Your task to perform on an android device: Clear the shopping cart on ebay.com. Search for "bose quietcomfort 35" on ebay.com, select the first entry, add it to the cart, then select checkout. Image 0: 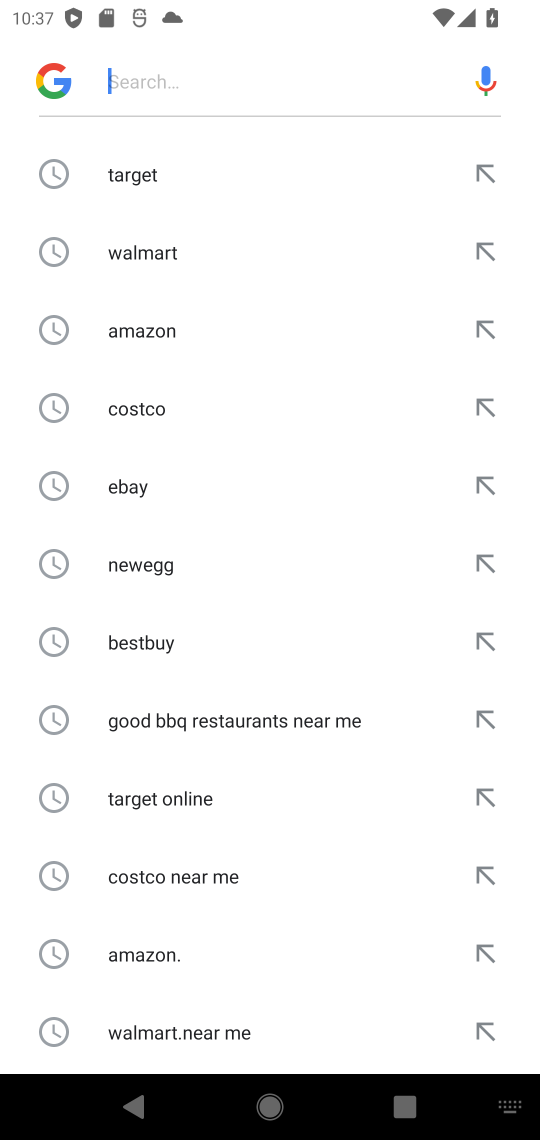
Step 0: click (139, 78)
Your task to perform on an android device: Clear the shopping cart on ebay.com. Search for "bose quietcomfort 35" on ebay.com, select the first entry, add it to the cart, then select checkout. Image 1: 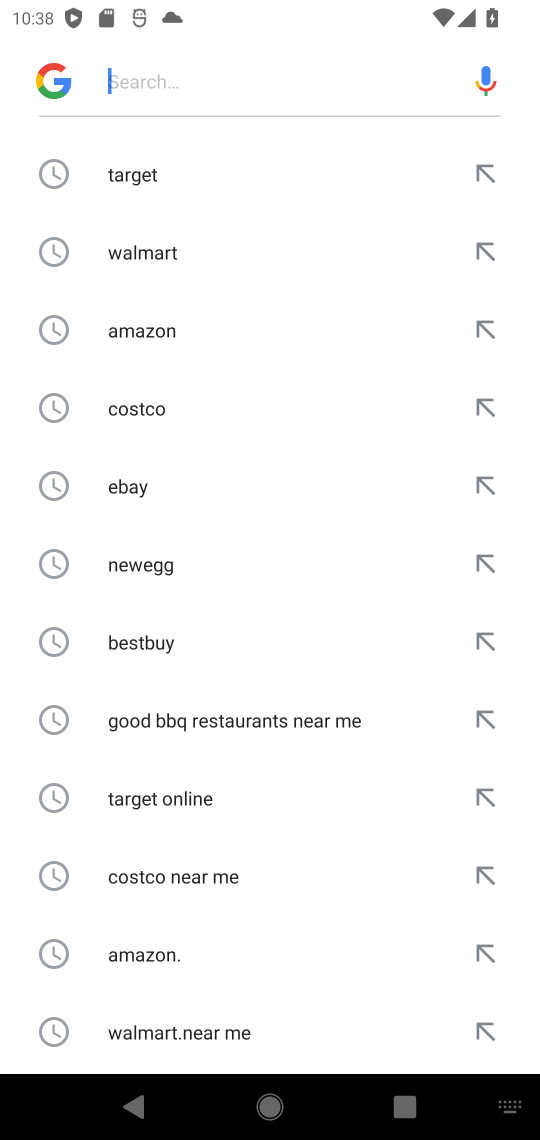
Step 1: type "ebay.com"
Your task to perform on an android device: Clear the shopping cart on ebay.com. Search for "bose quietcomfort 35" on ebay.com, select the first entry, add it to the cart, then select checkout. Image 2: 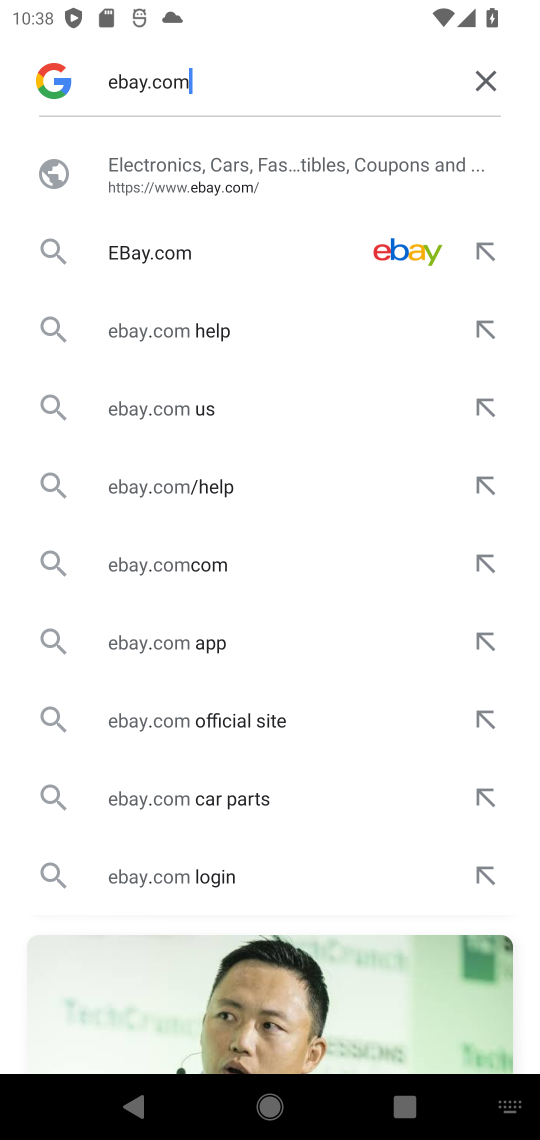
Step 2: click (130, 251)
Your task to perform on an android device: Clear the shopping cart on ebay.com. Search for "bose quietcomfort 35" on ebay.com, select the first entry, add it to the cart, then select checkout. Image 3: 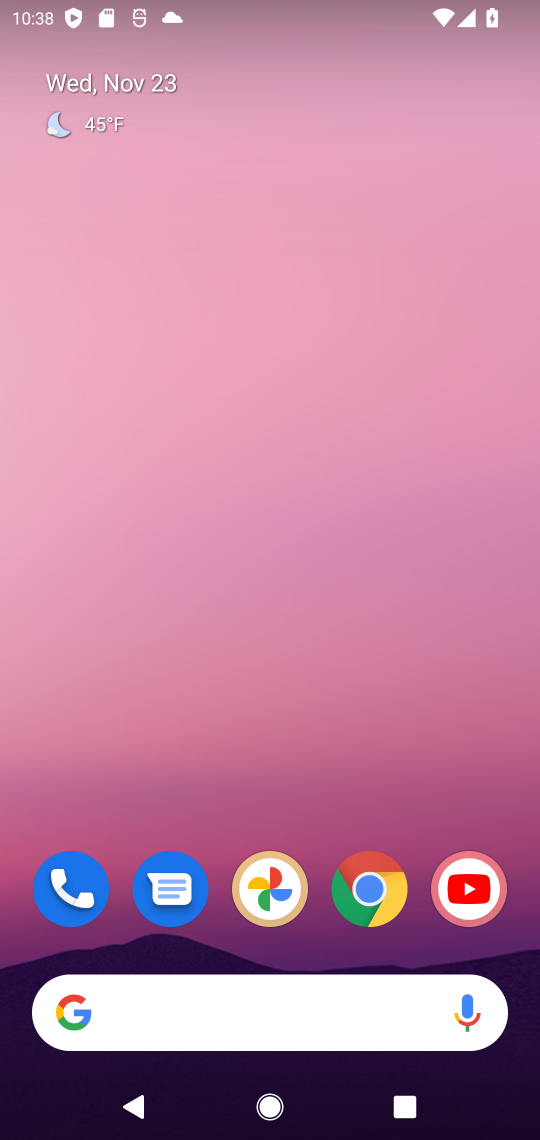
Step 3: click (363, 900)
Your task to perform on an android device: Clear the shopping cart on ebay.com. Search for "bose quietcomfort 35" on ebay.com, select the first entry, add it to the cart, then select checkout. Image 4: 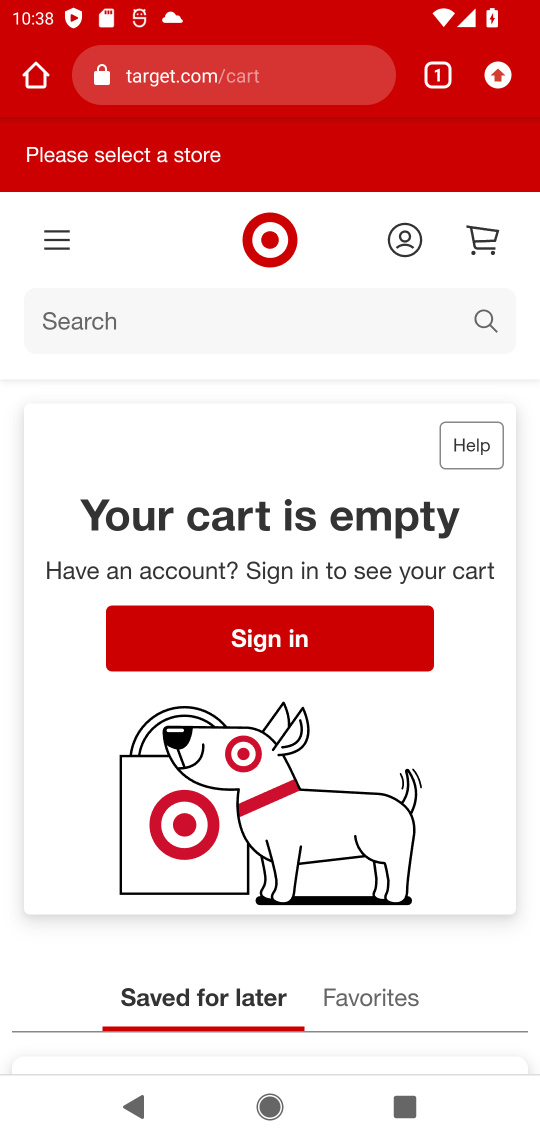
Step 4: click (185, 83)
Your task to perform on an android device: Clear the shopping cart on ebay.com. Search for "bose quietcomfort 35" on ebay.com, select the first entry, add it to the cart, then select checkout. Image 5: 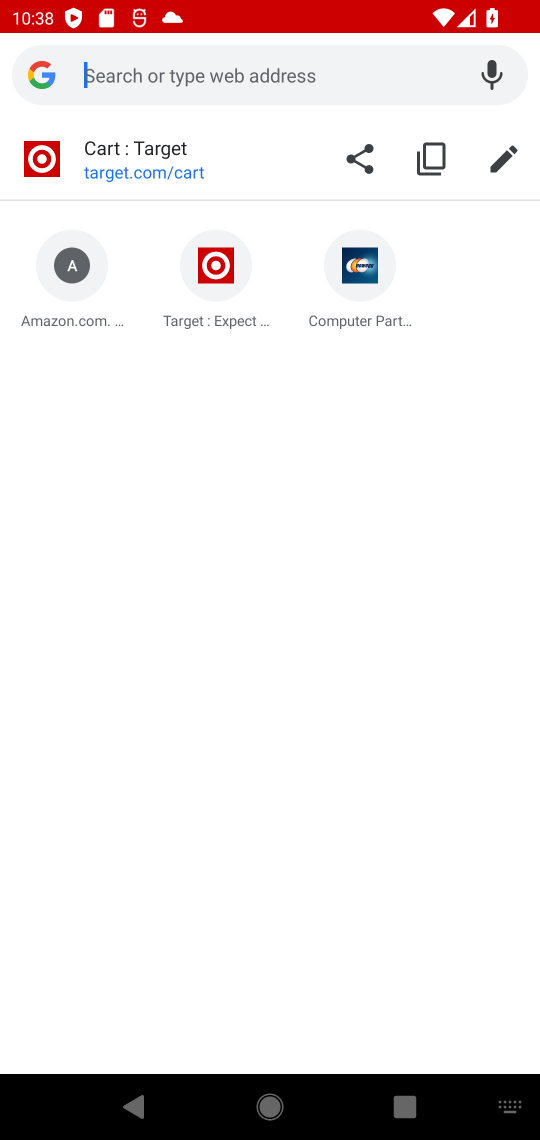
Step 5: type "ebay.com"
Your task to perform on an android device: Clear the shopping cart on ebay.com. Search for "bose quietcomfort 35" on ebay.com, select the first entry, add it to the cart, then select checkout. Image 6: 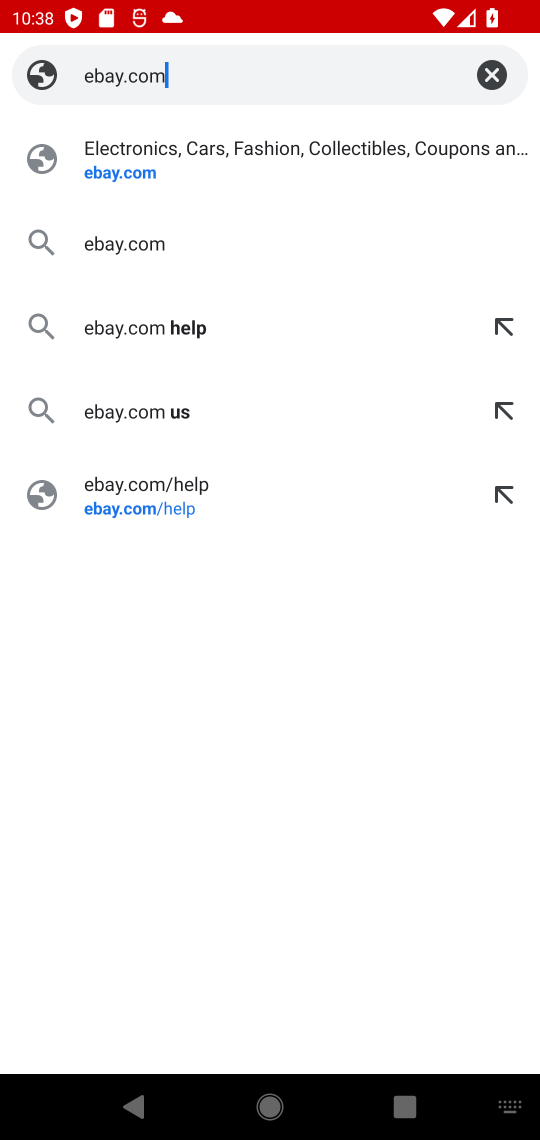
Step 6: click (108, 171)
Your task to perform on an android device: Clear the shopping cart on ebay.com. Search for "bose quietcomfort 35" on ebay.com, select the first entry, add it to the cart, then select checkout. Image 7: 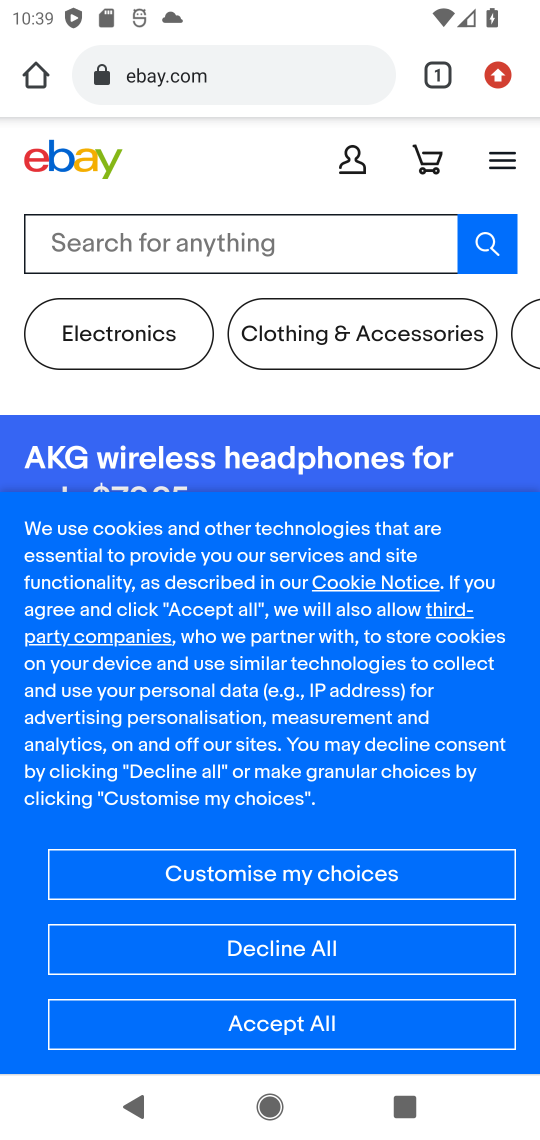
Step 7: click (436, 161)
Your task to perform on an android device: Clear the shopping cart on ebay.com. Search for "bose quietcomfort 35" on ebay.com, select the first entry, add it to the cart, then select checkout. Image 8: 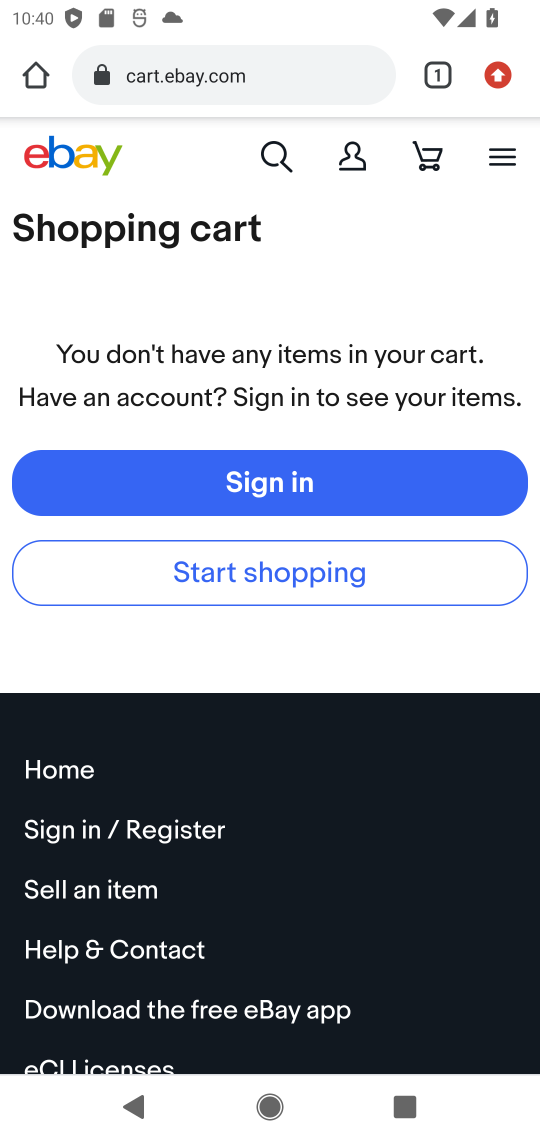
Step 8: click (288, 157)
Your task to perform on an android device: Clear the shopping cart on ebay.com. Search for "bose quietcomfort 35" on ebay.com, select the first entry, add it to the cart, then select checkout. Image 9: 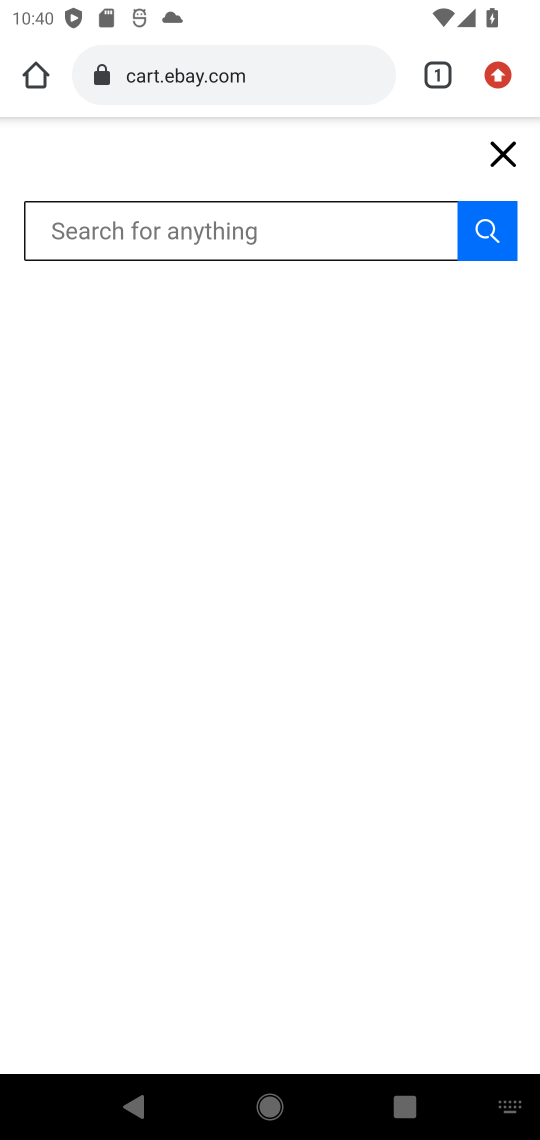
Step 9: type "bose quietcomfort 35"
Your task to perform on an android device: Clear the shopping cart on ebay.com. Search for "bose quietcomfort 35" on ebay.com, select the first entry, add it to the cart, then select checkout. Image 10: 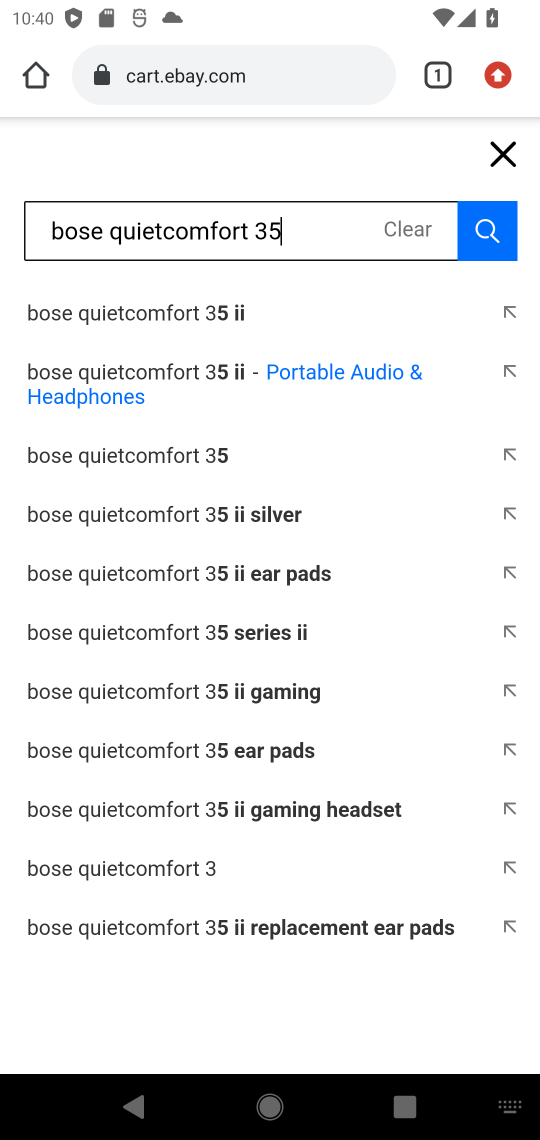
Step 10: click (147, 449)
Your task to perform on an android device: Clear the shopping cart on ebay.com. Search for "bose quietcomfort 35" on ebay.com, select the first entry, add it to the cart, then select checkout. Image 11: 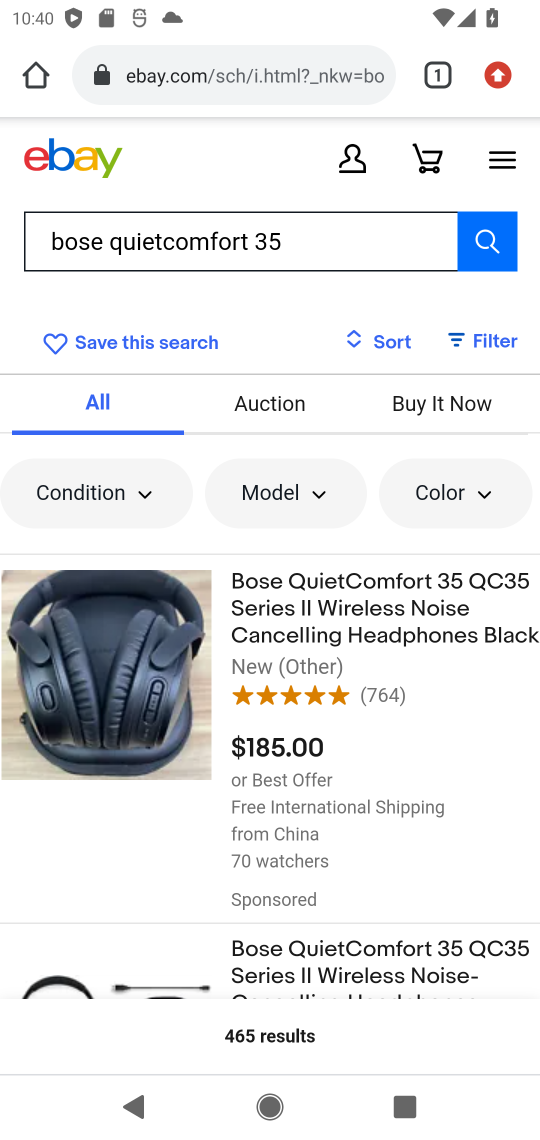
Step 11: click (96, 725)
Your task to perform on an android device: Clear the shopping cart on ebay.com. Search for "bose quietcomfort 35" on ebay.com, select the first entry, add it to the cart, then select checkout. Image 12: 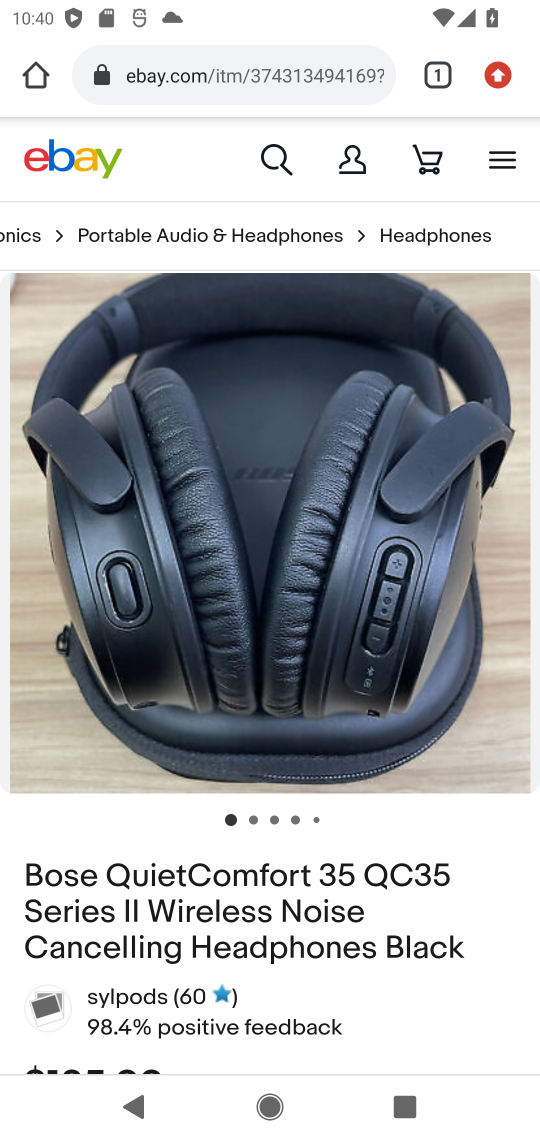
Step 12: drag from (366, 653) to (374, 216)
Your task to perform on an android device: Clear the shopping cart on ebay.com. Search for "bose quietcomfort 35" on ebay.com, select the first entry, add it to the cart, then select checkout. Image 13: 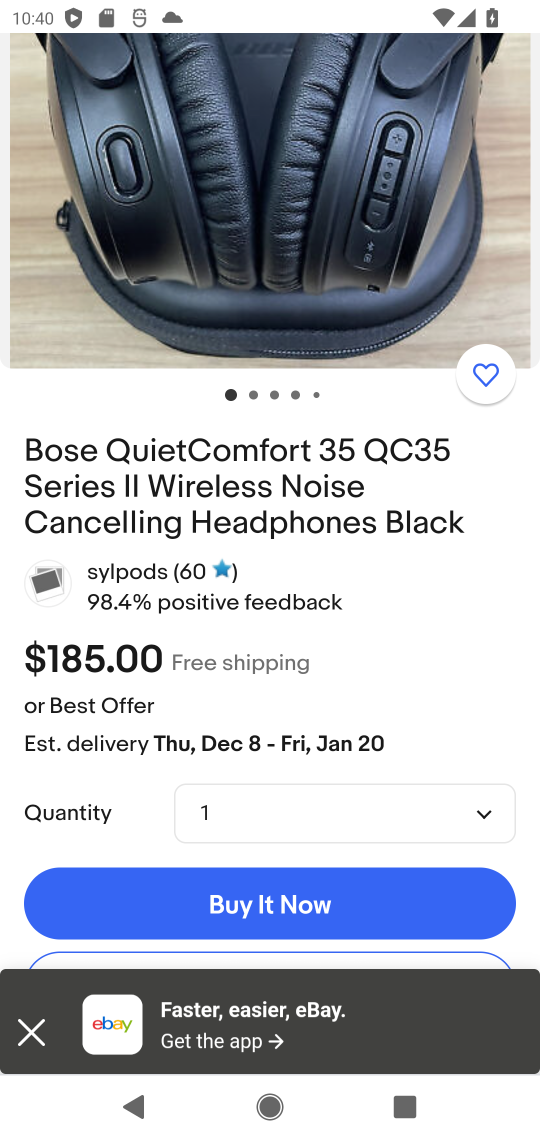
Step 13: drag from (249, 705) to (243, 226)
Your task to perform on an android device: Clear the shopping cart on ebay.com. Search for "bose quietcomfort 35" on ebay.com, select the first entry, add it to the cart, then select checkout. Image 14: 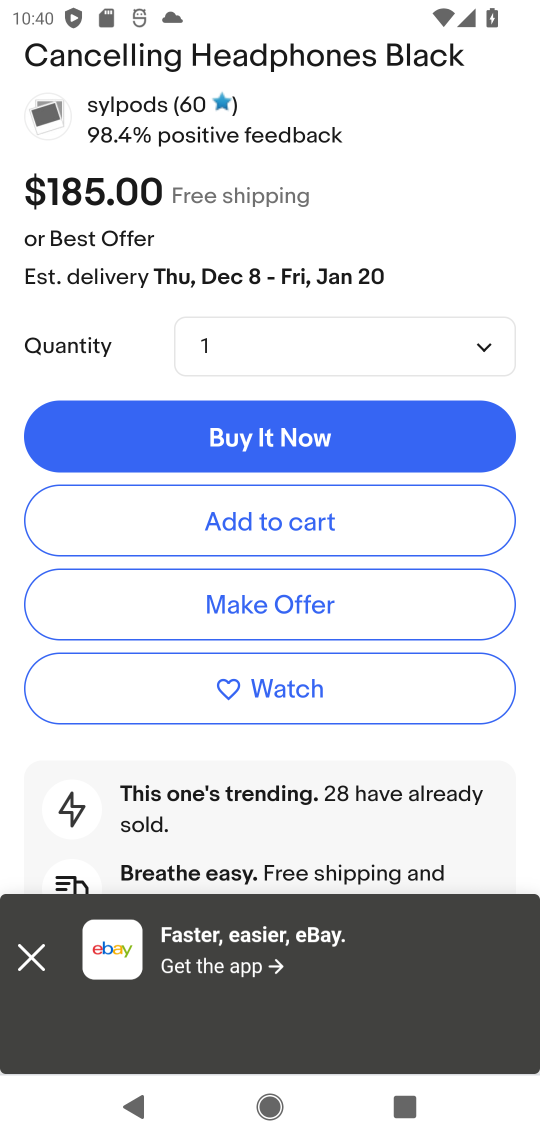
Step 14: click (241, 518)
Your task to perform on an android device: Clear the shopping cart on ebay.com. Search for "bose quietcomfort 35" on ebay.com, select the first entry, add it to the cart, then select checkout. Image 15: 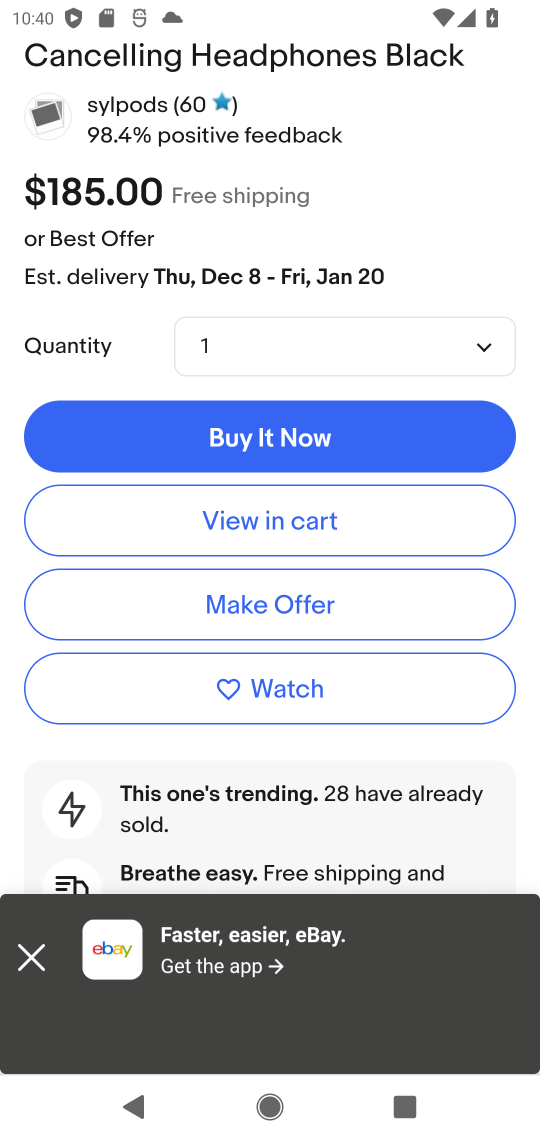
Step 15: click (241, 518)
Your task to perform on an android device: Clear the shopping cart on ebay.com. Search for "bose quietcomfort 35" on ebay.com, select the first entry, add it to the cart, then select checkout. Image 16: 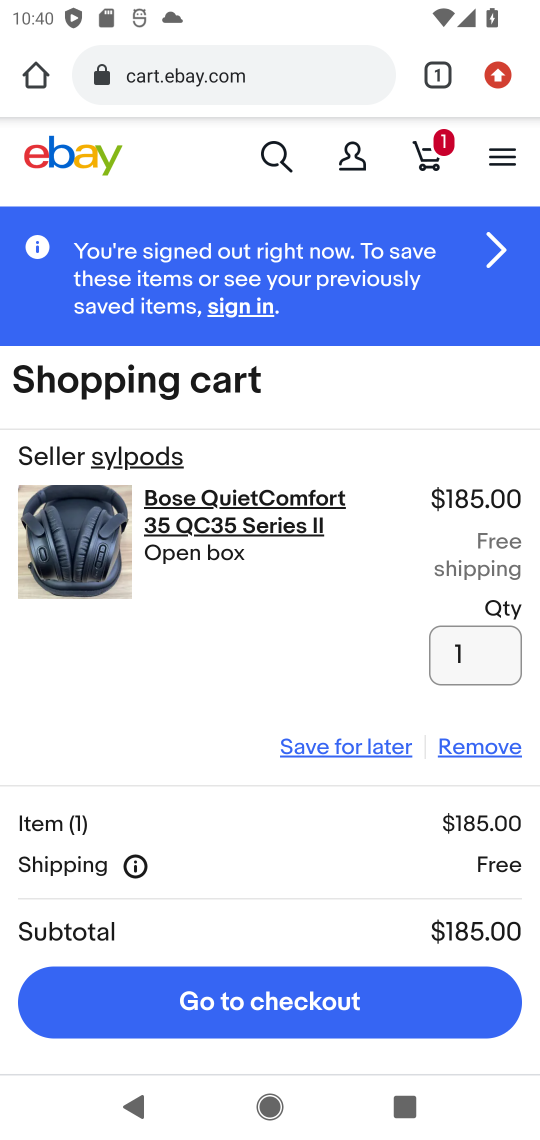
Step 16: click (247, 999)
Your task to perform on an android device: Clear the shopping cart on ebay.com. Search for "bose quietcomfort 35" on ebay.com, select the first entry, add it to the cart, then select checkout. Image 17: 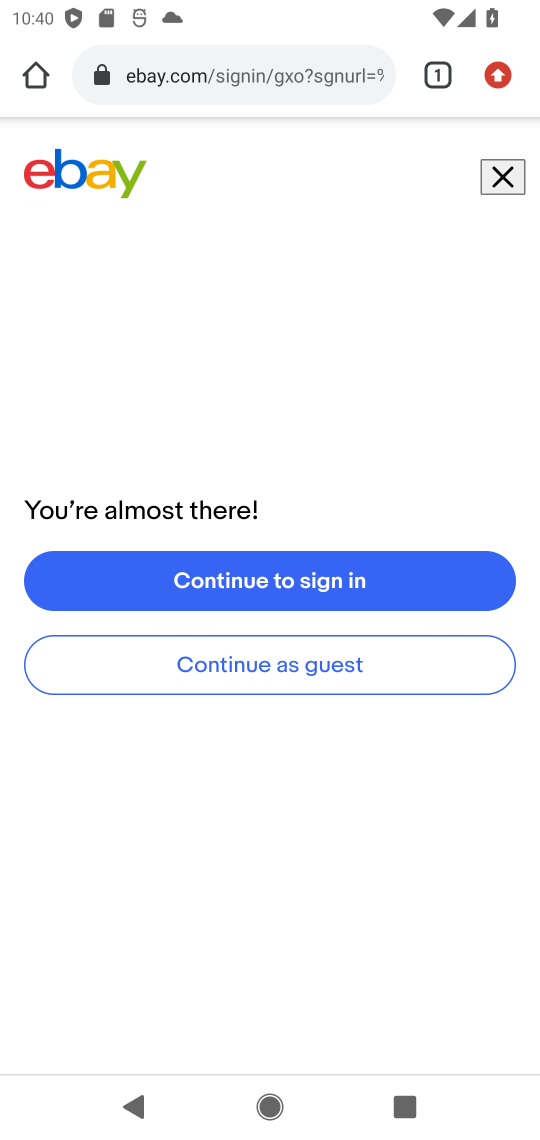
Step 17: task complete